Your task to perform on an android device: remove spam from my inbox in the gmail app Image 0: 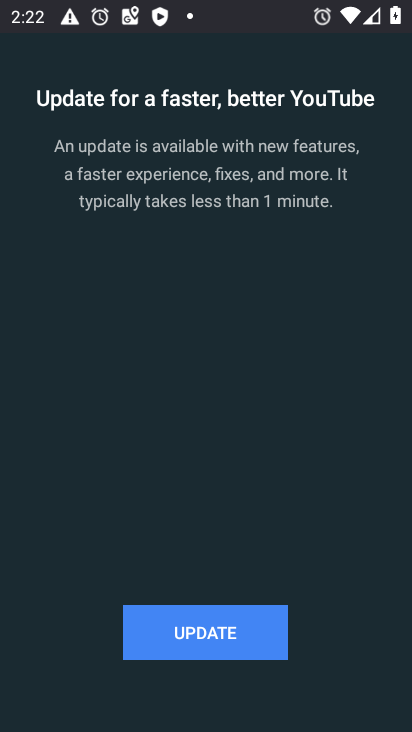
Step 0: press home button
Your task to perform on an android device: remove spam from my inbox in the gmail app Image 1: 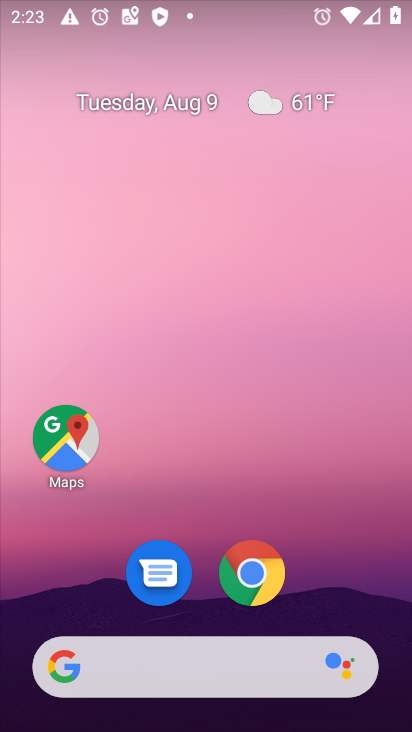
Step 1: drag from (50, 396) to (121, 204)
Your task to perform on an android device: remove spam from my inbox in the gmail app Image 2: 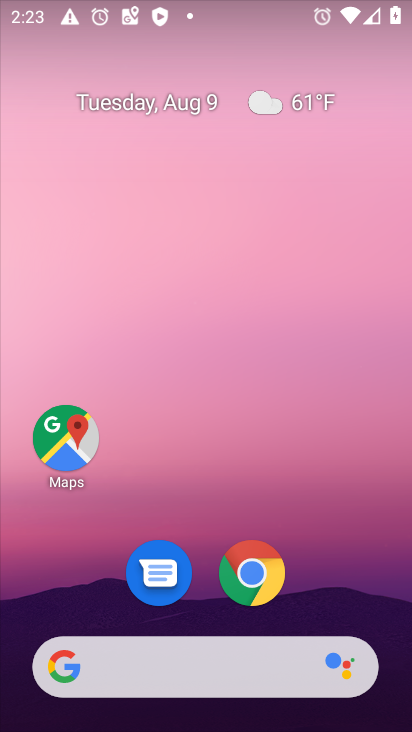
Step 2: drag from (45, 524) to (243, 62)
Your task to perform on an android device: remove spam from my inbox in the gmail app Image 3: 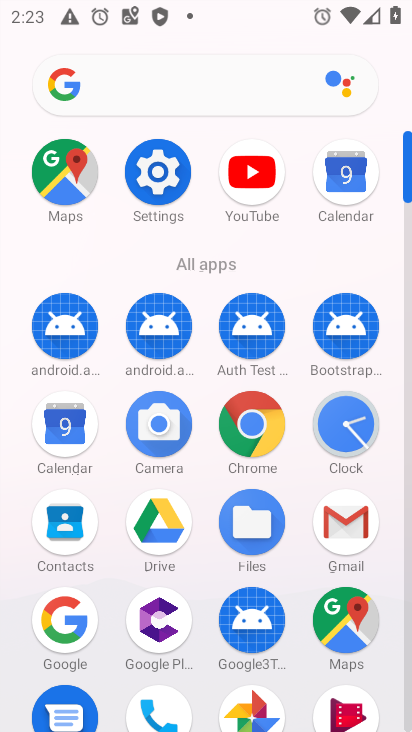
Step 3: click (326, 521)
Your task to perform on an android device: remove spam from my inbox in the gmail app Image 4: 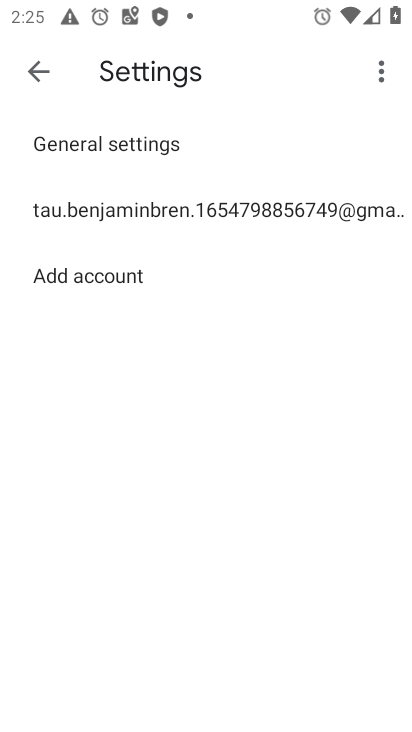
Step 4: task complete